Your task to perform on an android device: Do I have any events this weekend? Image 0: 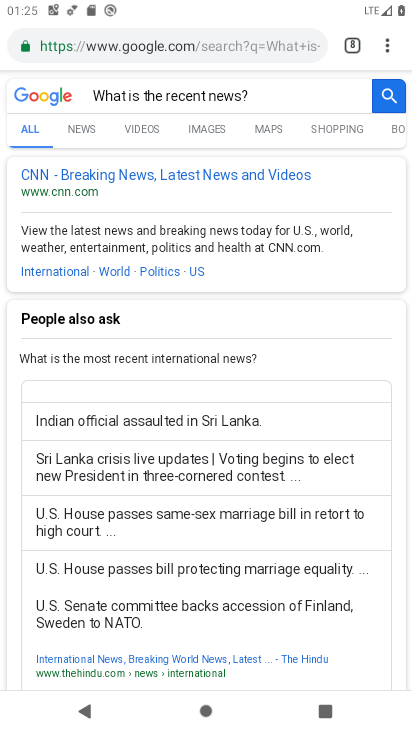
Step 0: click (386, 43)
Your task to perform on an android device: Do I have any events this weekend? Image 1: 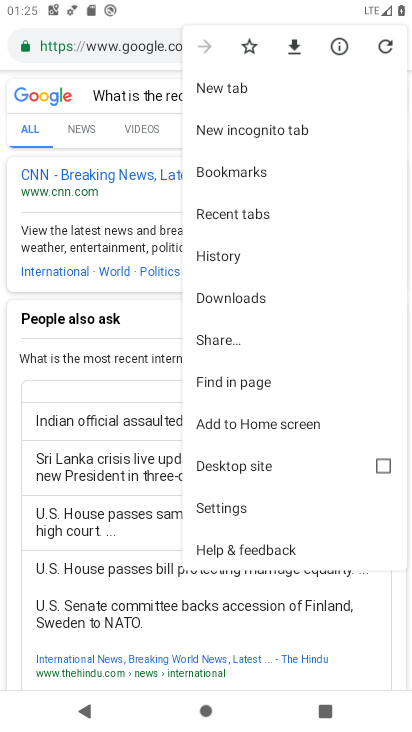
Step 1: click (275, 68)
Your task to perform on an android device: Do I have any events this weekend? Image 2: 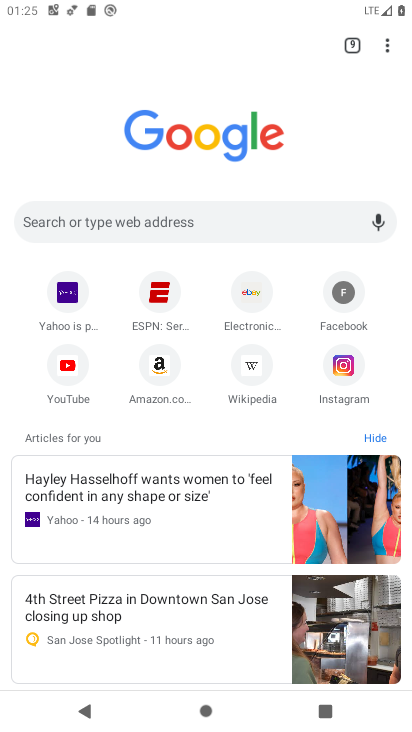
Step 2: click (243, 217)
Your task to perform on an android device: Do I have any events this weekend? Image 3: 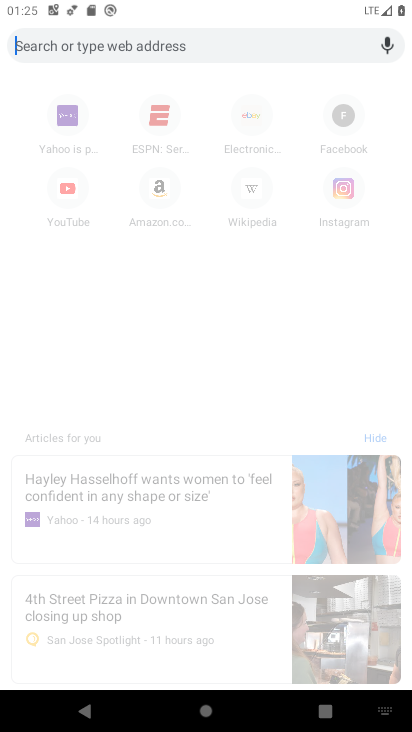
Step 3: type "Do I have any events this weekend "
Your task to perform on an android device: Do I have any events this weekend? Image 4: 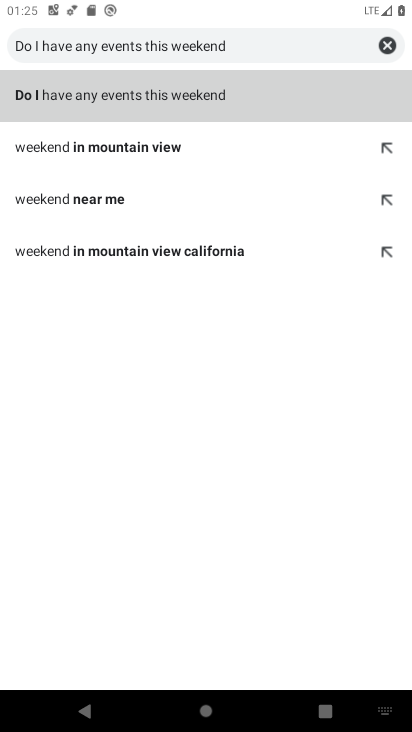
Step 4: click (178, 87)
Your task to perform on an android device: Do I have any events this weekend? Image 5: 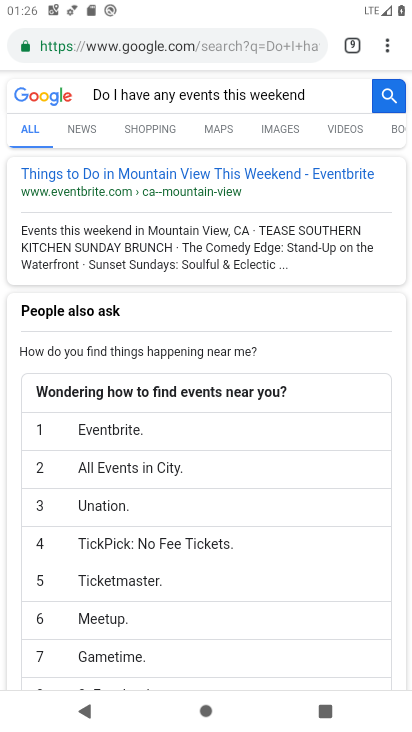
Step 5: task complete